Your task to perform on an android device: remove spam from my inbox in the gmail app Image 0: 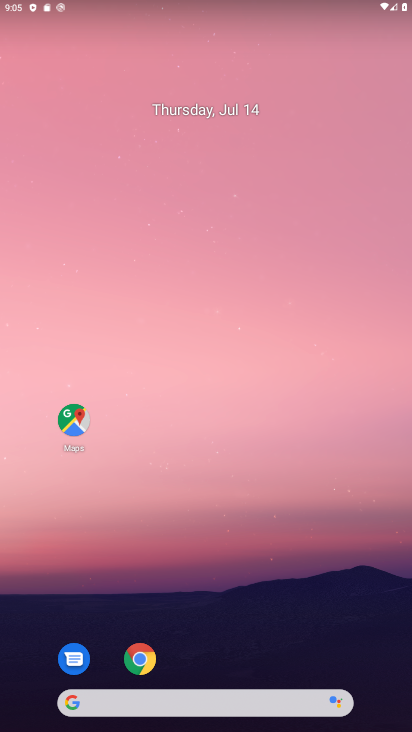
Step 0: drag from (243, 654) to (207, 285)
Your task to perform on an android device: remove spam from my inbox in the gmail app Image 1: 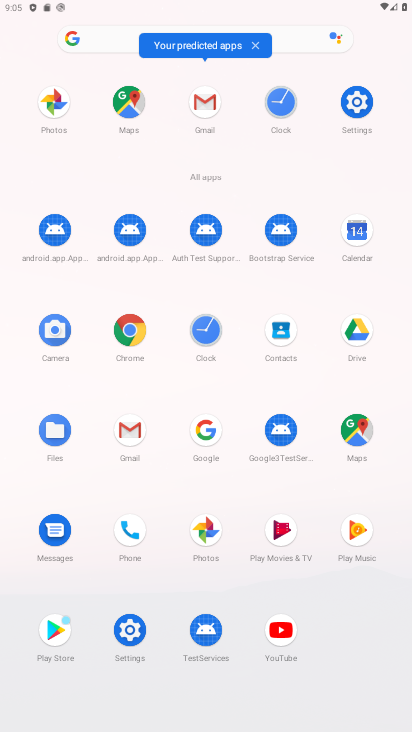
Step 1: click (137, 429)
Your task to perform on an android device: remove spam from my inbox in the gmail app Image 2: 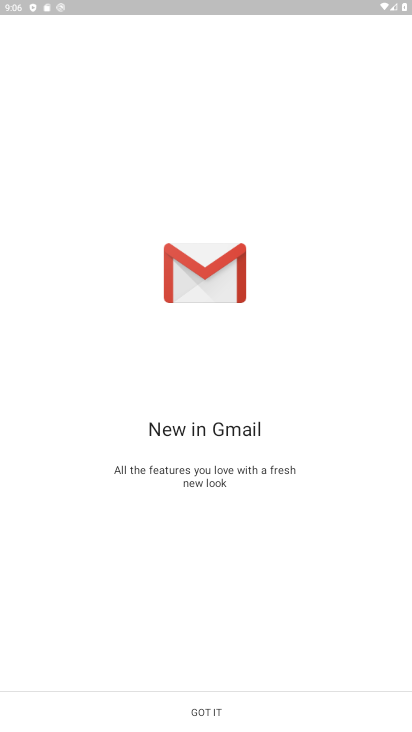
Step 2: click (237, 697)
Your task to perform on an android device: remove spam from my inbox in the gmail app Image 3: 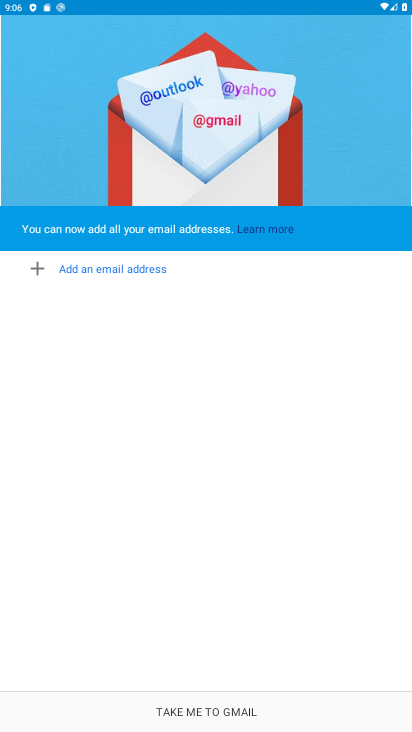
Step 3: click (233, 715)
Your task to perform on an android device: remove spam from my inbox in the gmail app Image 4: 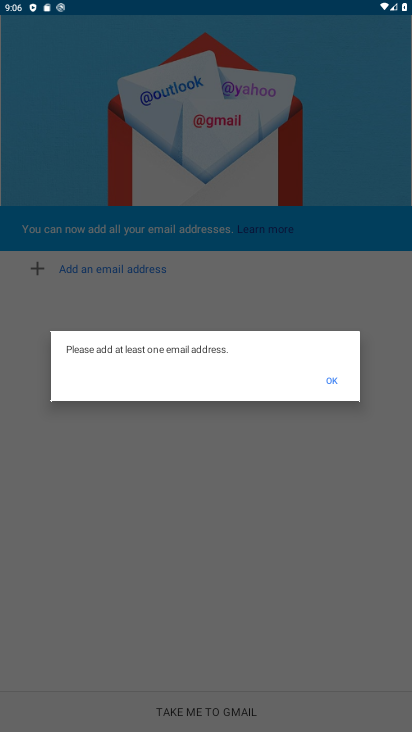
Step 4: task complete